Your task to perform on an android device: make emails show in primary in the gmail app Image 0: 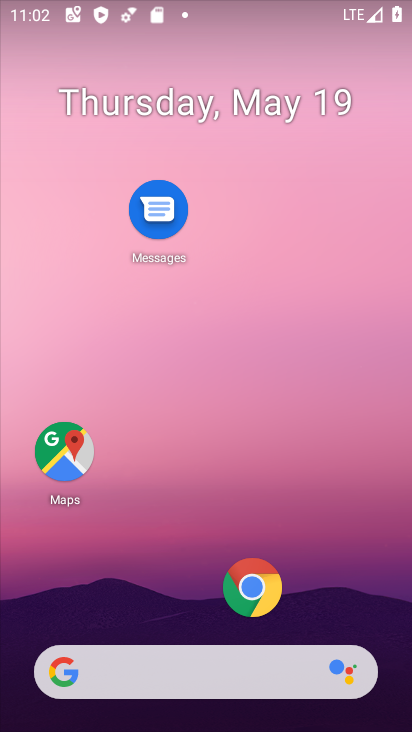
Step 0: drag from (145, 615) to (303, 16)
Your task to perform on an android device: make emails show in primary in the gmail app Image 1: 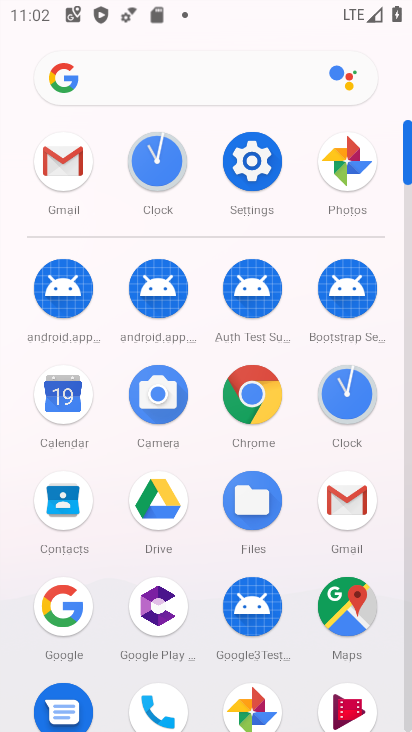
Step 1: click (75, 180)
Your task to perform on an android device: make emails show in primary in the gmail app Image 2: 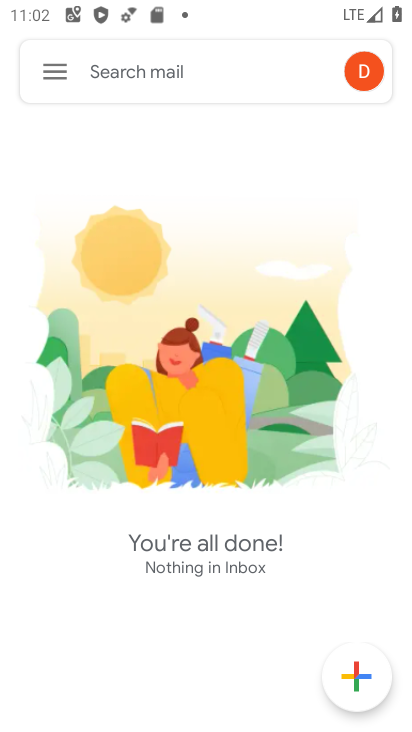
Step 2: click (53, 75)
Your task to perform on an android device: make emails show in primary in the gmail app Image 3: 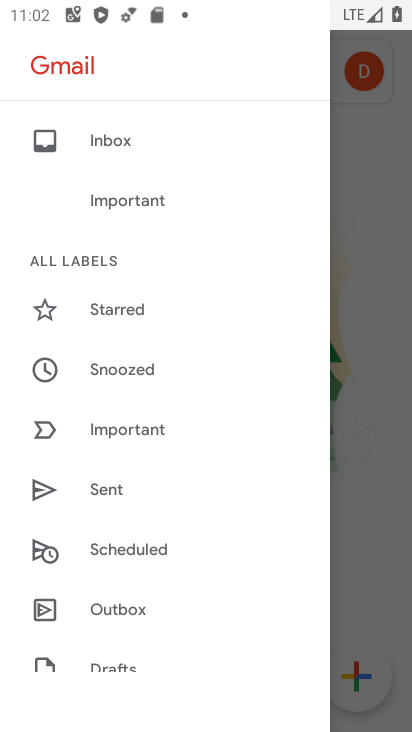
Step 3: task complete